Your task to perform on an android device: create a new album in the google photos Image 0: 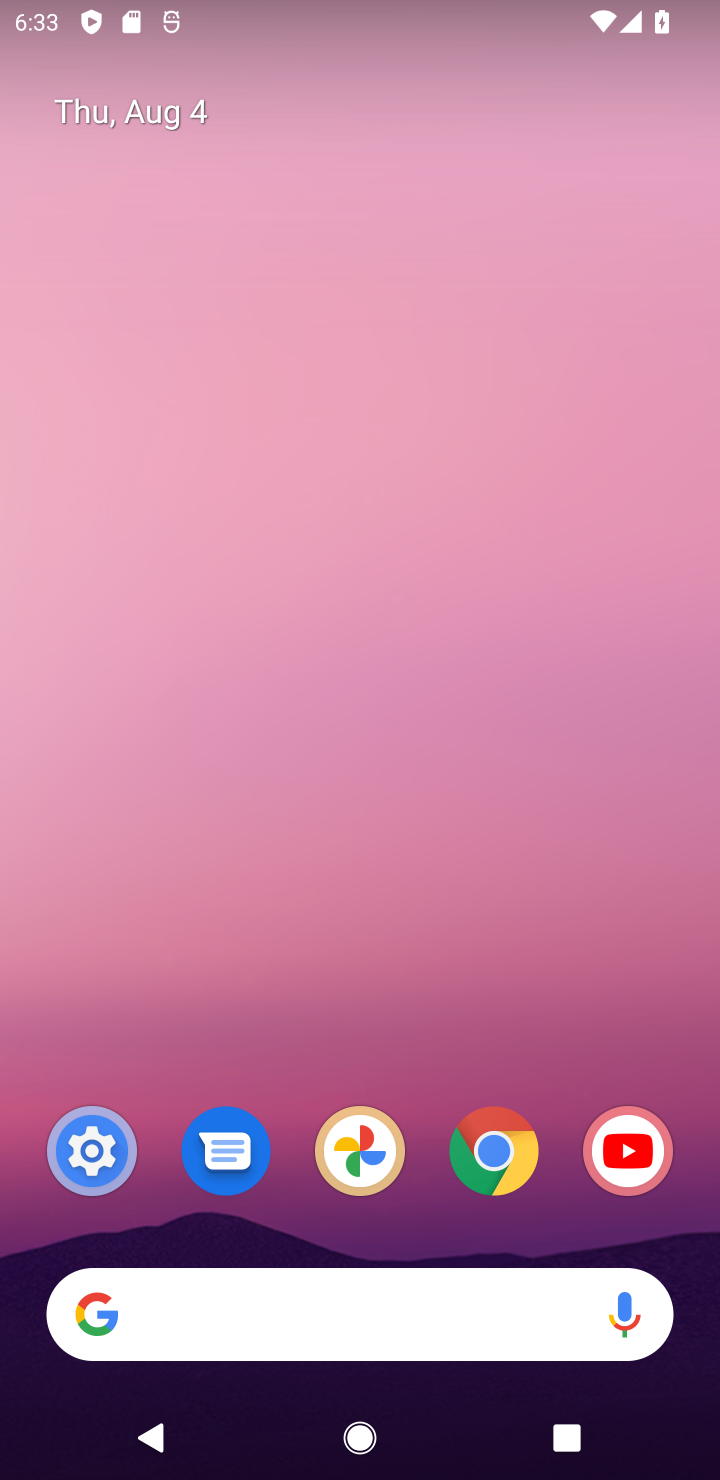
Step 0: drag from (348, 1231) to (336, 227)
Your task to perform on an android device: create a new album in the google photos Image 1: 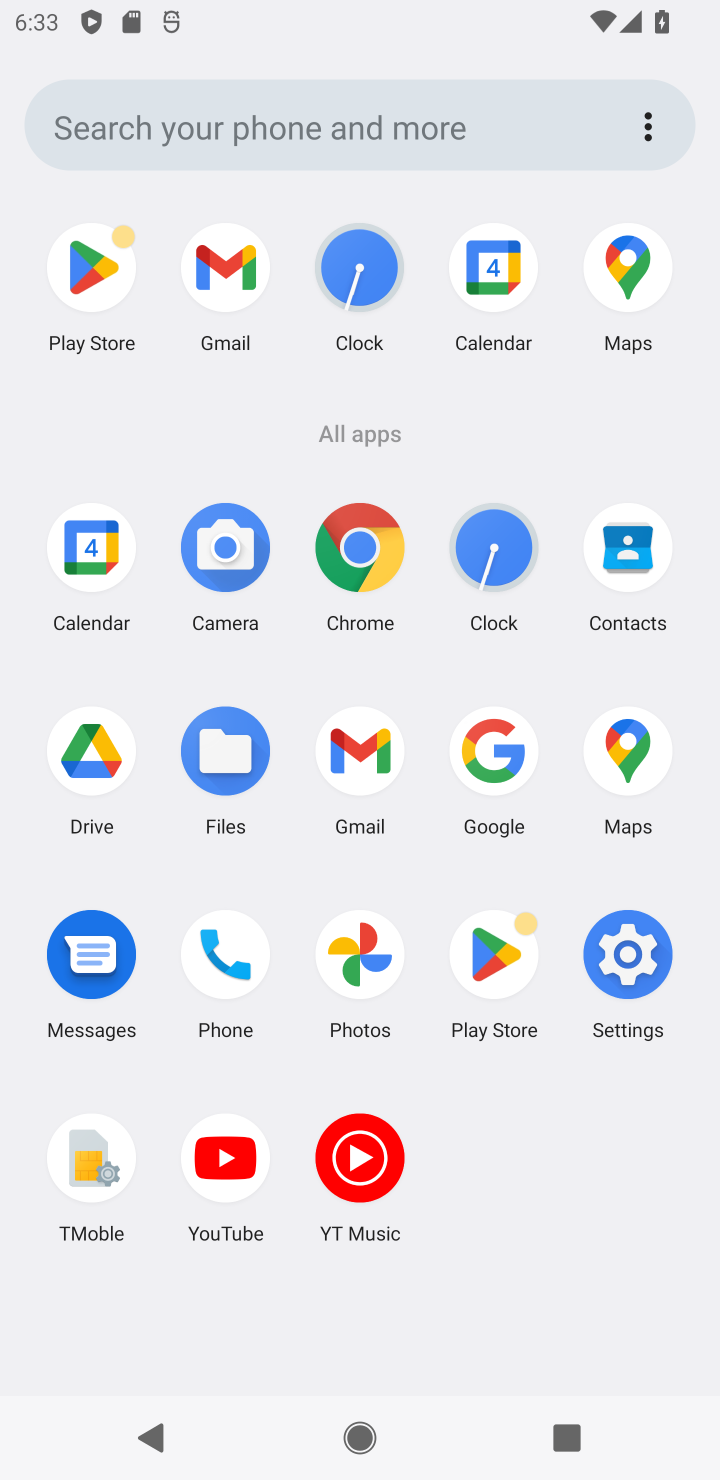
Step 1: click (368, 968)
Your task to perform on an android device: create a new album in the google photos Image 2: 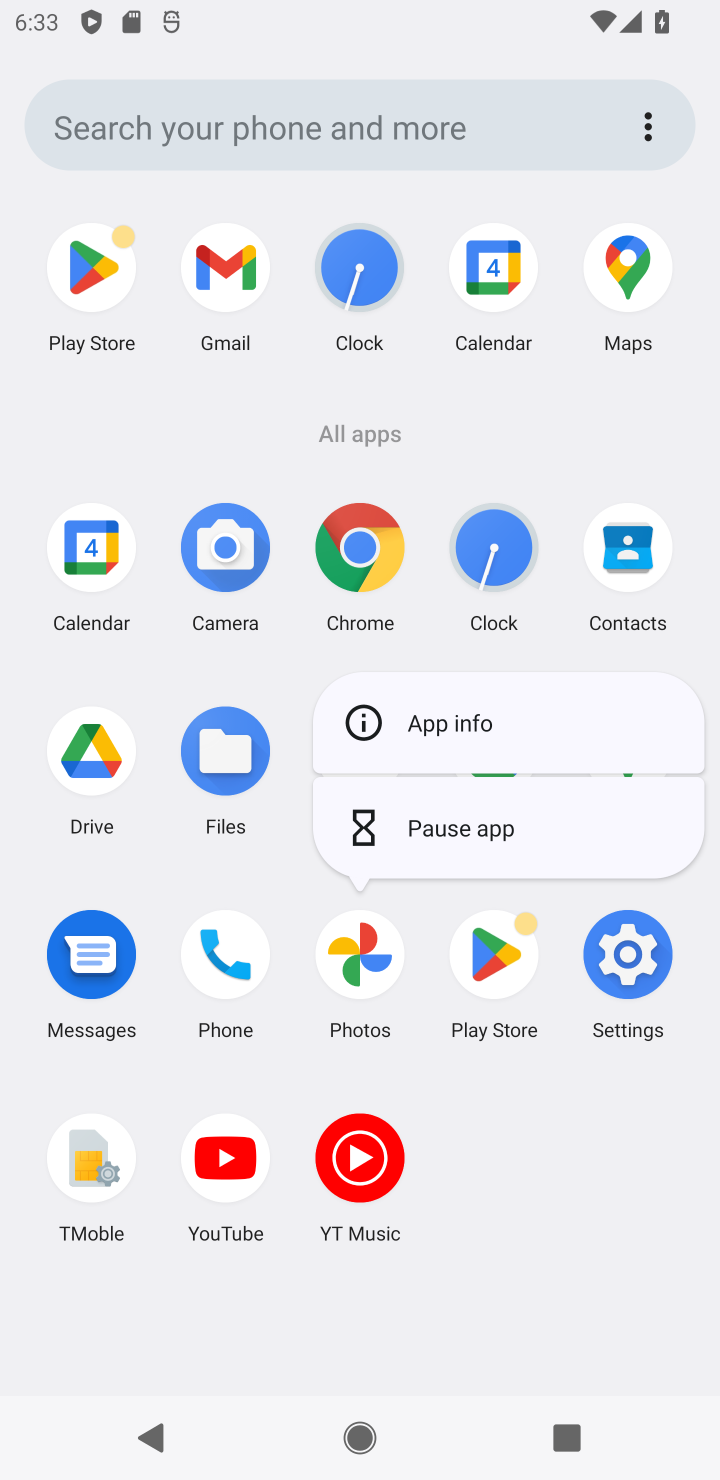
Step 2: click (368, 968)
Your task to perform on an android device: create a new album in the google photos Image 3: 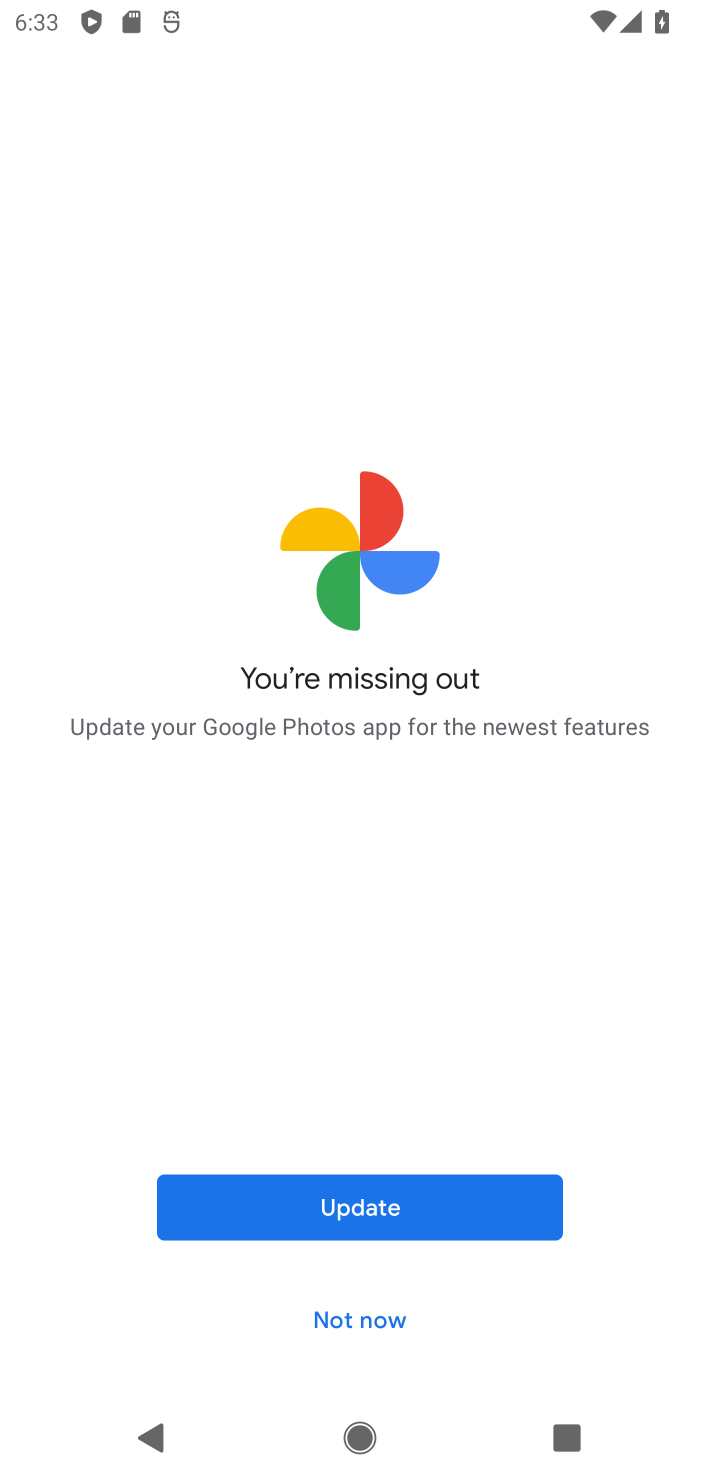
Step 3: click (361, 1316)
Your task to perform on an android device: create a new album in the google photos Image 4: 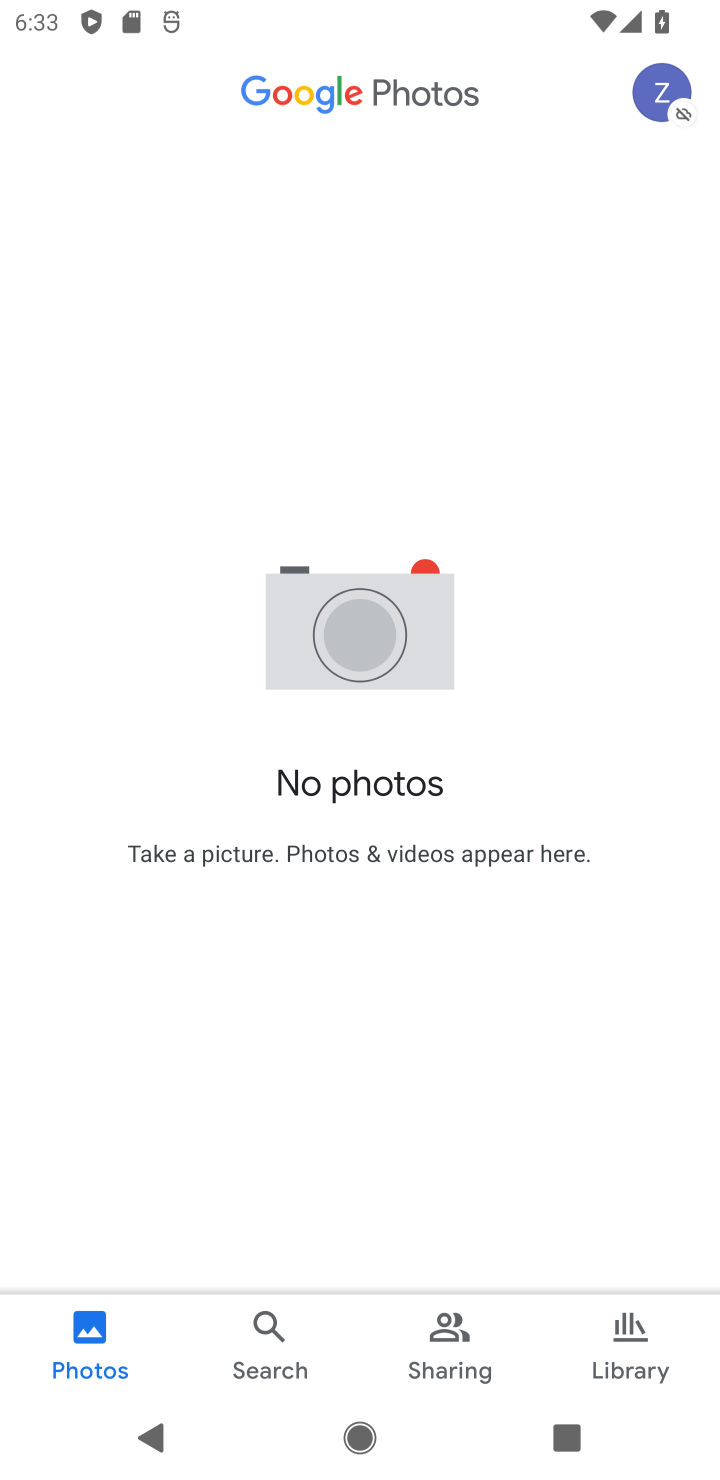
Step 4: click (633, 1351)
Your task to perform on an android device: create a new album in the google photos Image 5: 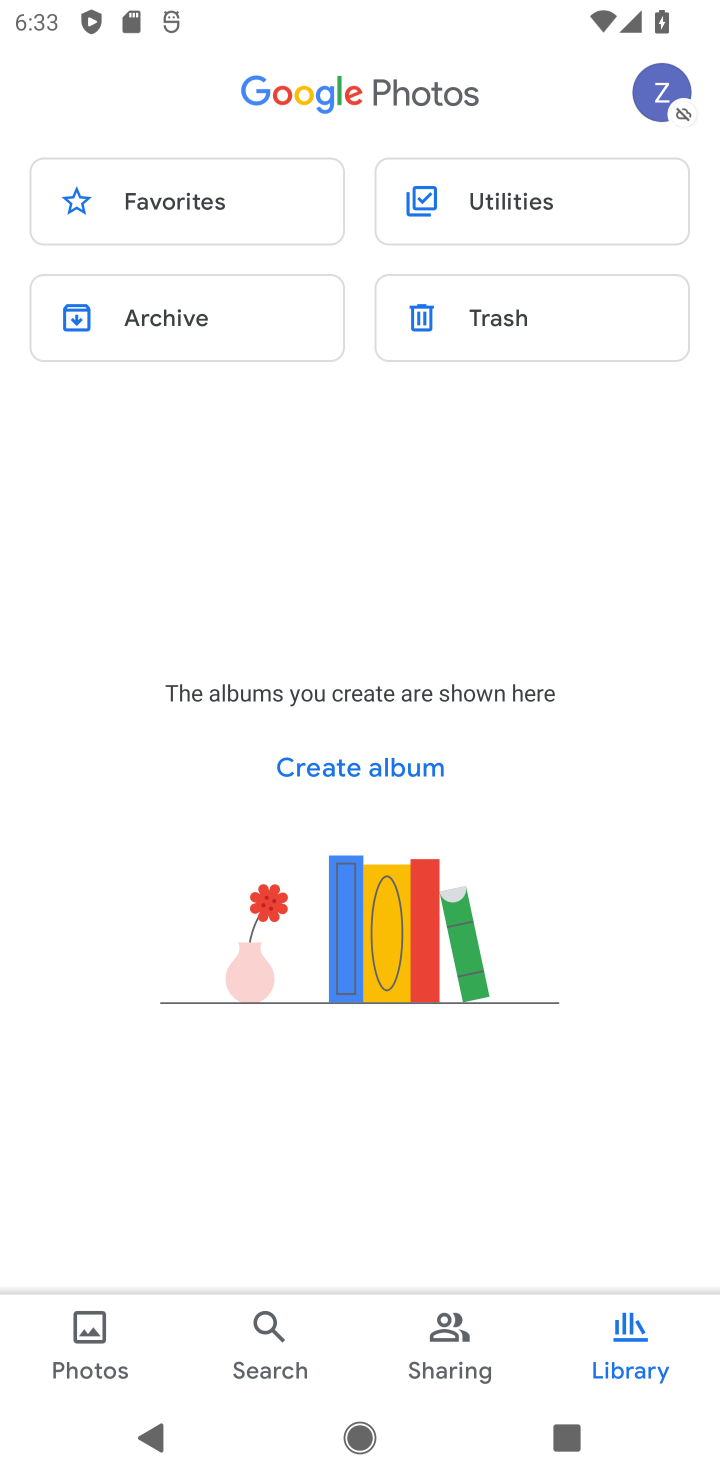
Step 5: click (344, 777)
Your task to perform on an android device: create a new album in the google photos Image 6: 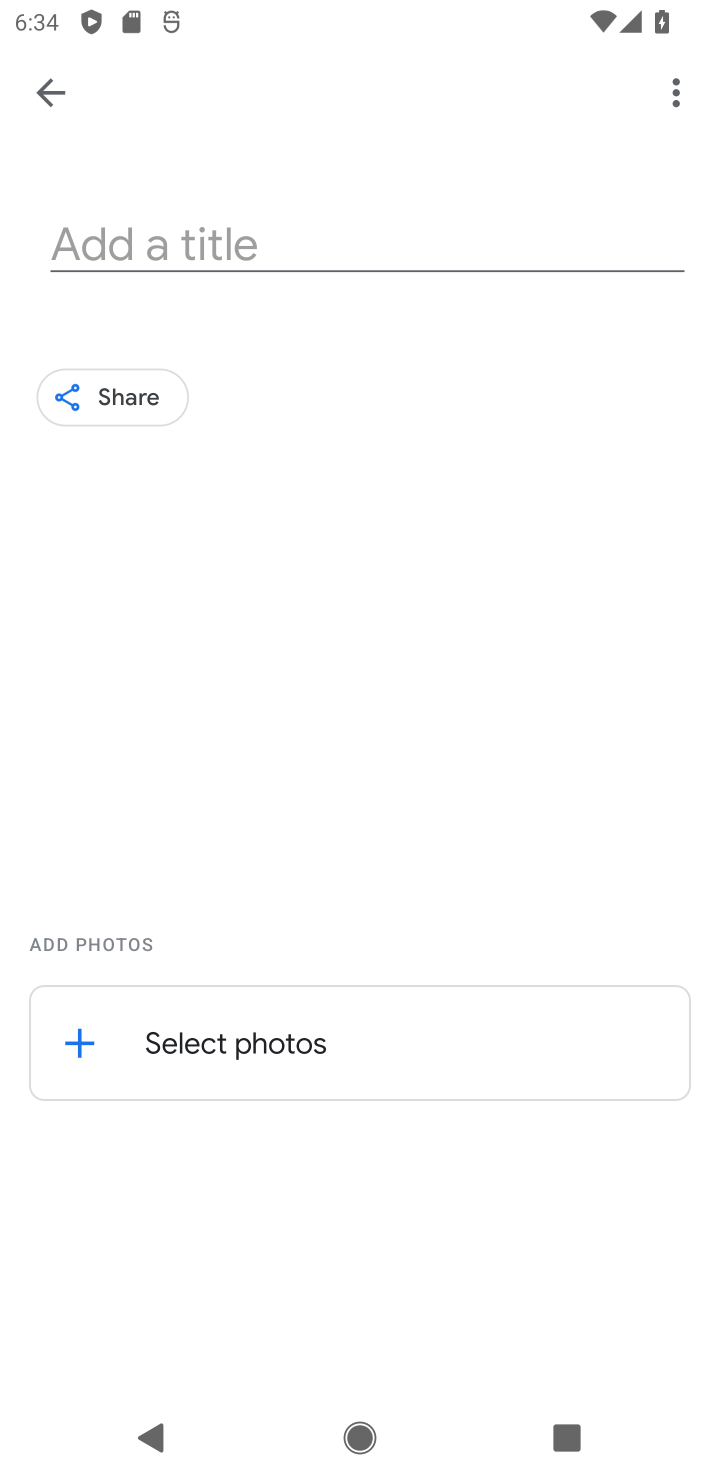
Step 6: click (82, 1033)
Your task to perform on an android device: create a new album in the google photos Image 7: 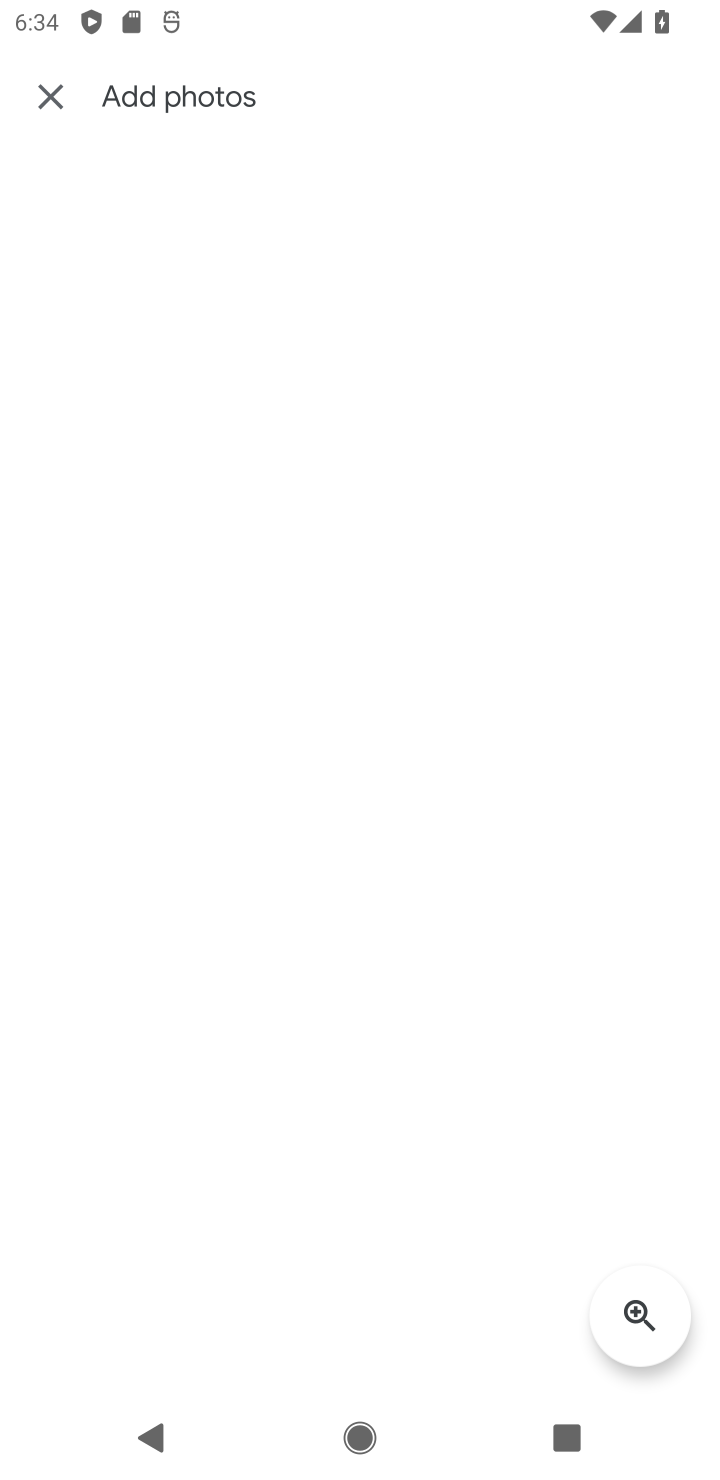
Step 7: task complete